Your task to perform on an android device: What's the weather like in San Francisco? Image 0: 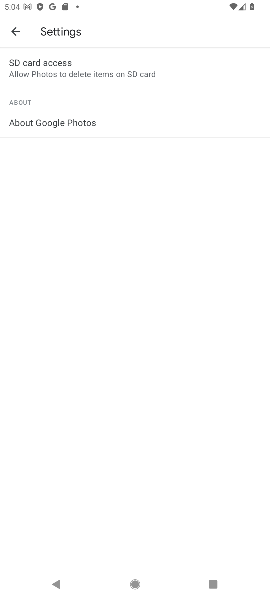
Step 0: press home button
Your task to perform on an android device: What's the weather like in San Francisco? Image 1: 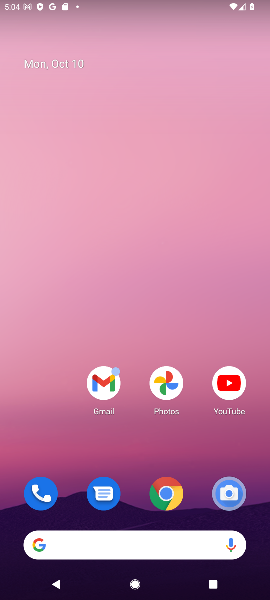
Step 1: click (151, 536)
Your task to perform on an android device: What's the weather like in San Francisco? Image 2: 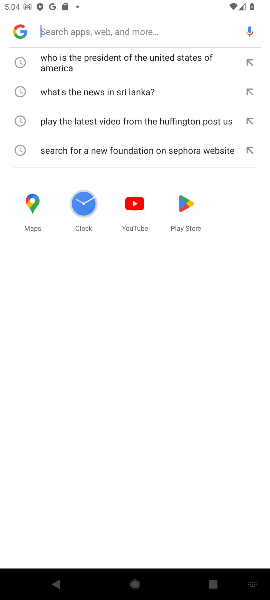
Step 2: type "What's the weather like in San Francisco?"
Your task to perform on an android device: What's the weather like in San Francisco? Image 3: 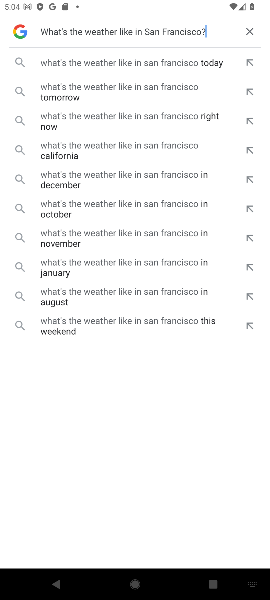
Step 3: click (139, 56)
Your task to perform on an android device: What's the weather like in San Francisco? Image 4: 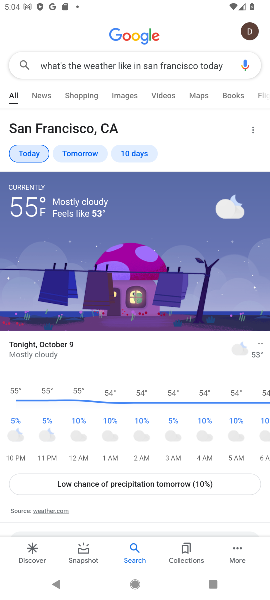
Step 4: task complete